Your task to perform on an android device: find which apps use the phone's location Image 0: 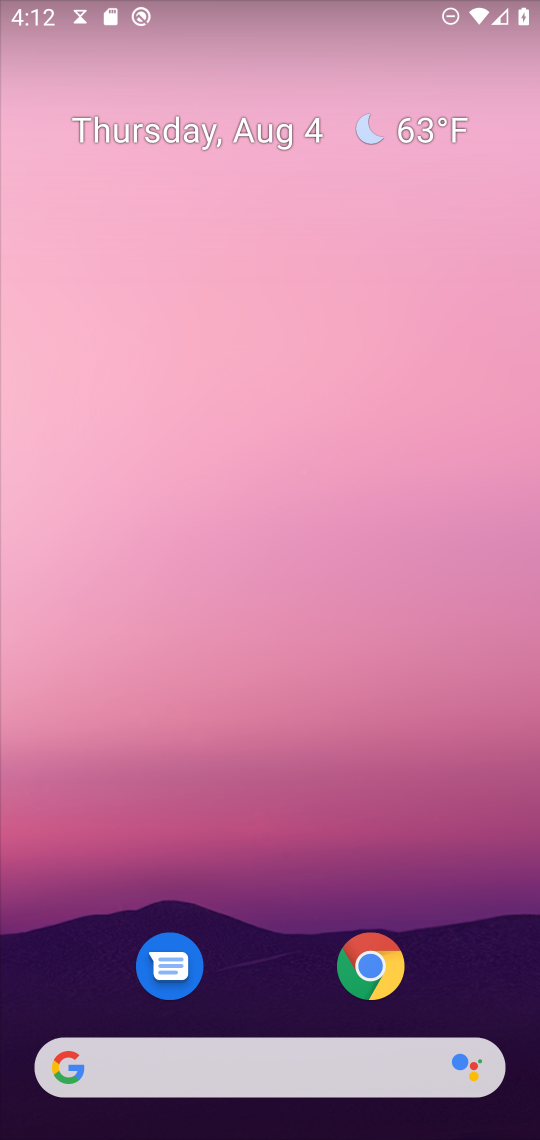
Step 0: drag from (176, 984) to (155, 210)
Your task to perform on an android device: find which apps use the phone's location Image 1: 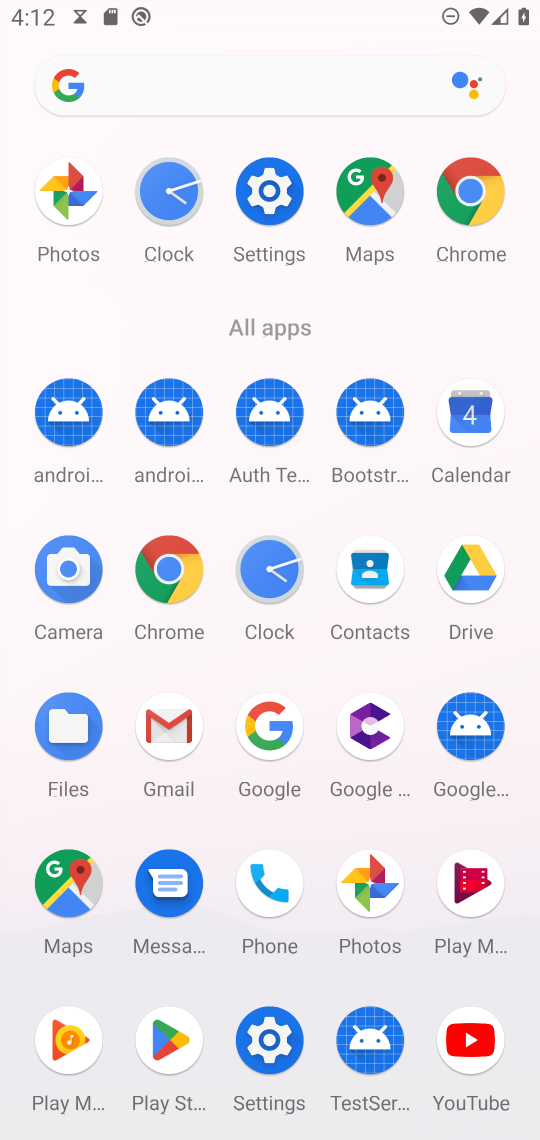
Step 1: click (270, 203)
Your task to perform on an android device: find which apps use the phone's location Image 2: 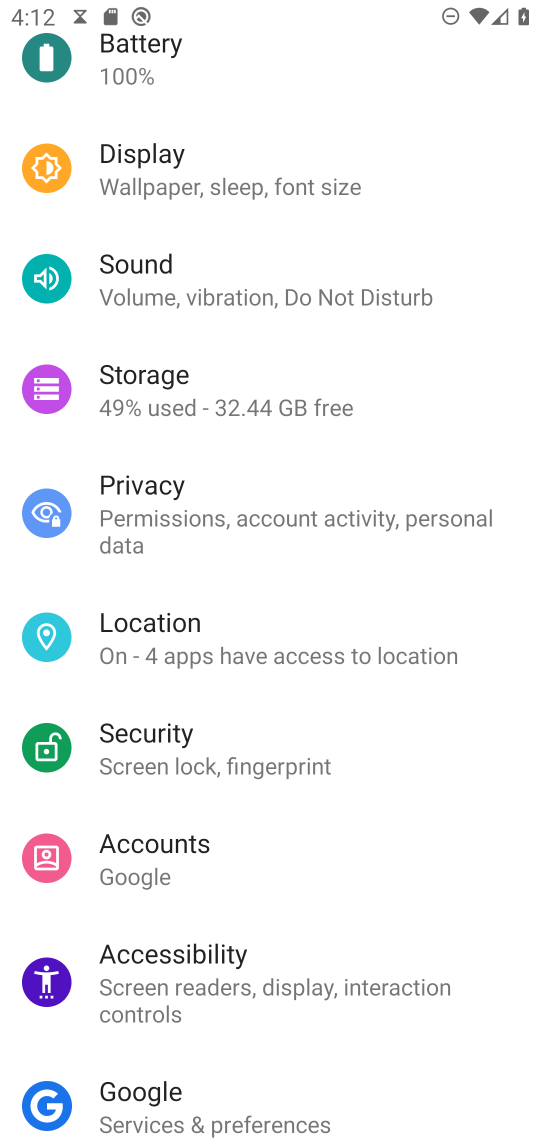
Step 2: click (163, 671)
Your task to perform on an android device: find which apps use the phone's location Image 3: 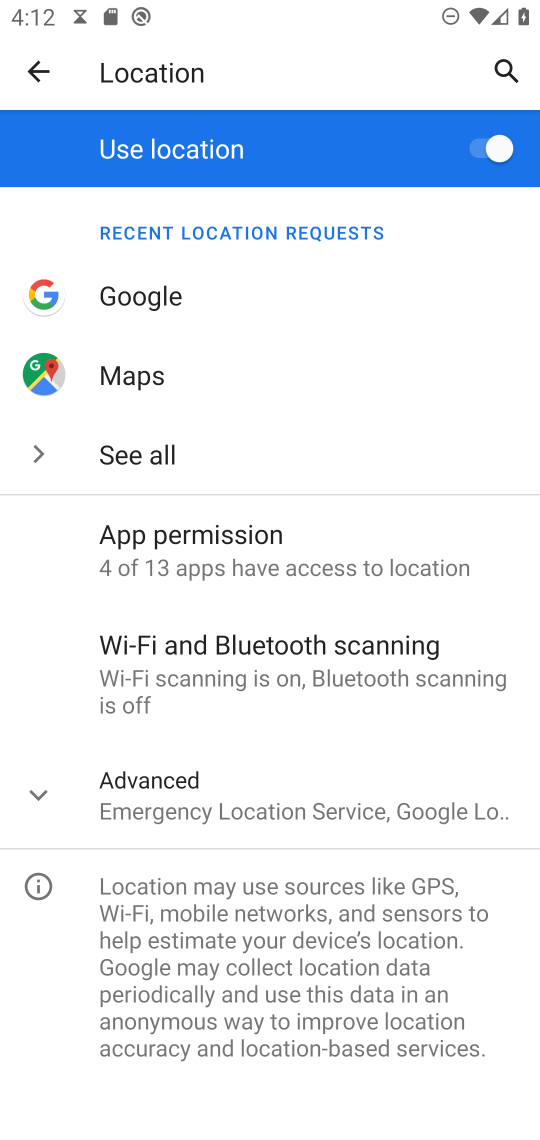
Step 3: click (118, 820)
Your task to perform on an android device: find which apps use the phone's location Image 4: 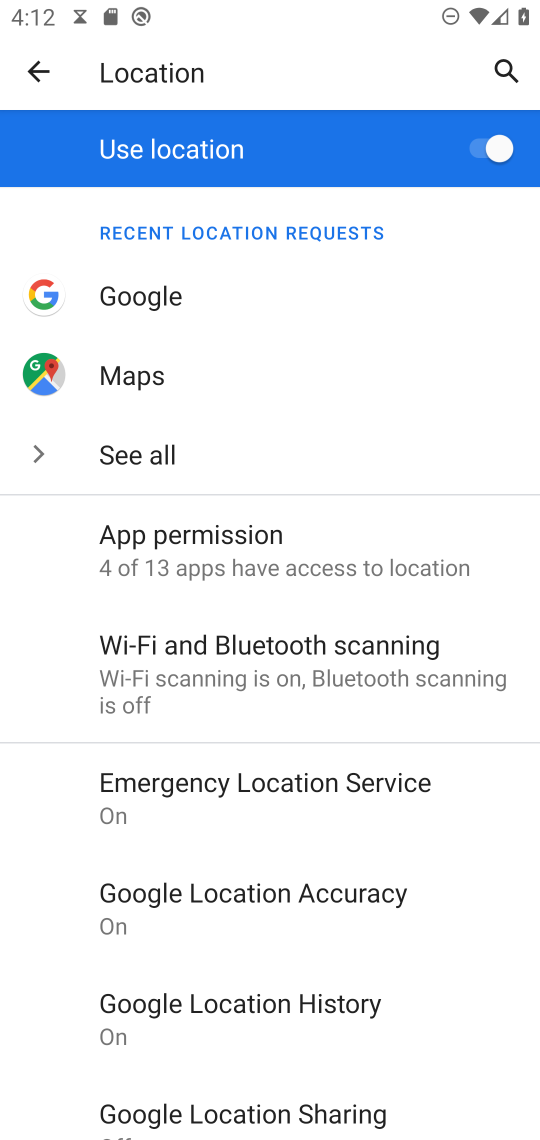
Step 4: click (145, 555)
Your task to perform on an android device: find which apps use the phone's location Image 5: 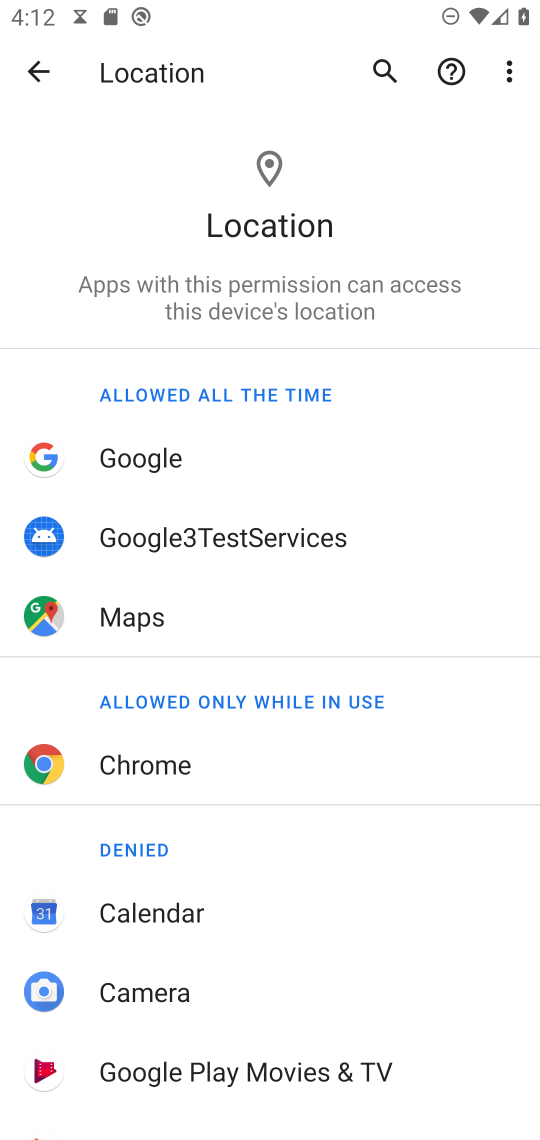
Step 5: task complete